Your task to perform on an android device: see sites visited before in the chrome app Image 0: 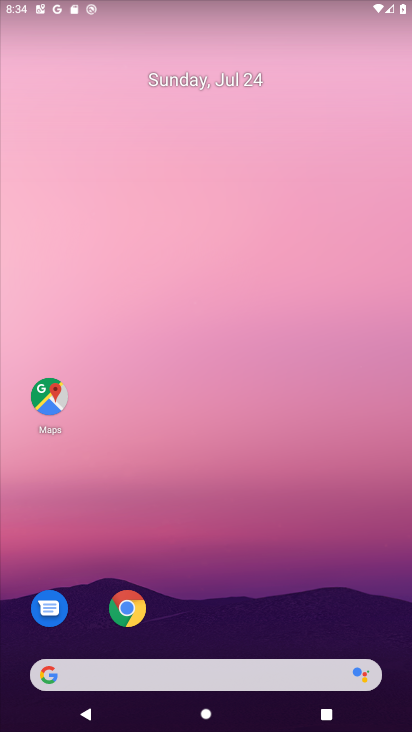
Step 0: click (124, 617)
Your task to perform on an android device: see sites visited before in the chrome app Image 1: 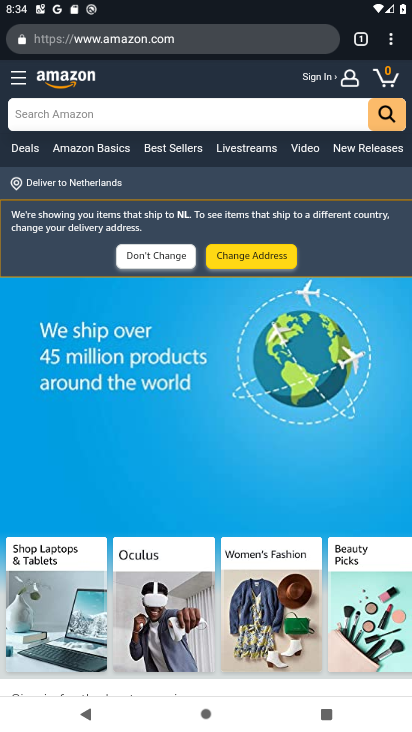
Step 1: click (402, 42)
Your task to perform on an android device: see sites visited before in the chrome app Image 2: 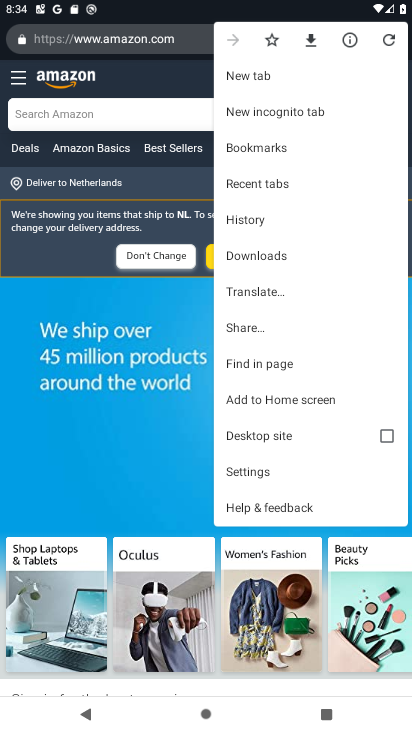
Step 2: click (306, 189)
Your task to perform on an android device: see sites visited before in the chrome app Image 3: 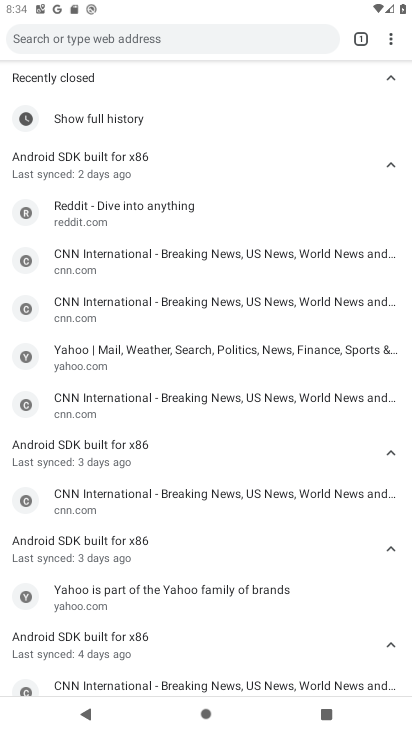
Step 3: task complete